Your task to perform on an android device: Play the last video I watched on Youtube Image 0: 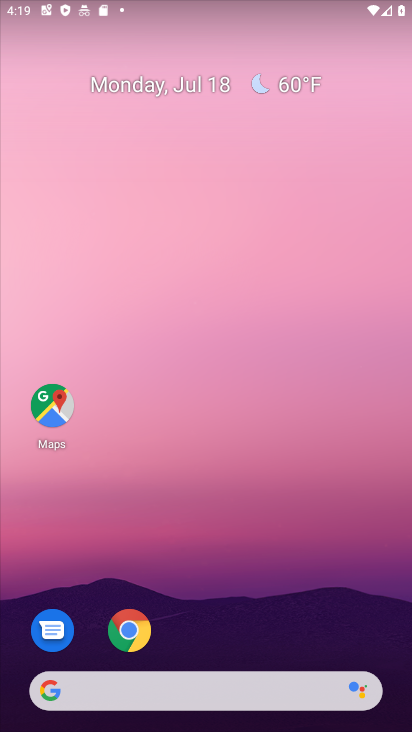
Step 0: drag from (277, 642) to (230, 193)
Your task to perform on an android device: Play the last video I watched on Youtube Image 1: 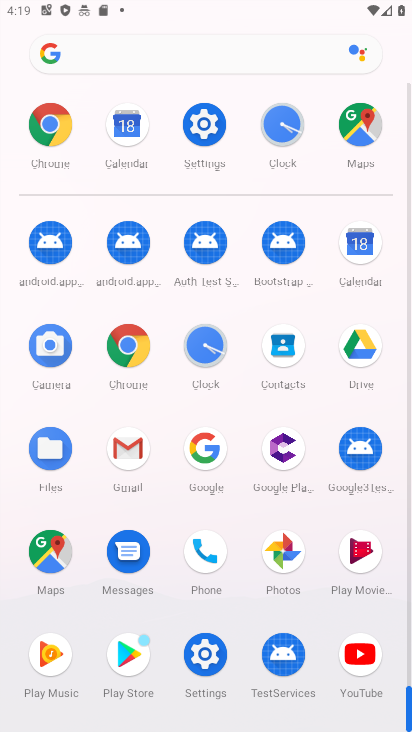
Step 1: click (361, 651)
Your task to perform on an android device: Play the last video I watched on Youtube Image 2: 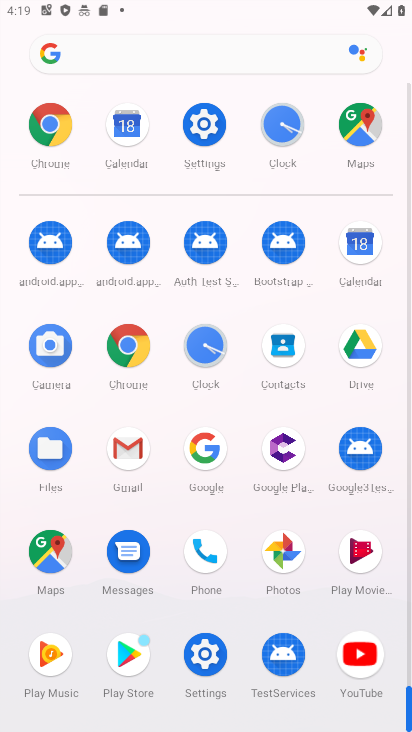
Step 2: click (355, 663)
Your task to perform on an android device: Play the last video I watched on Youtube Image 3: 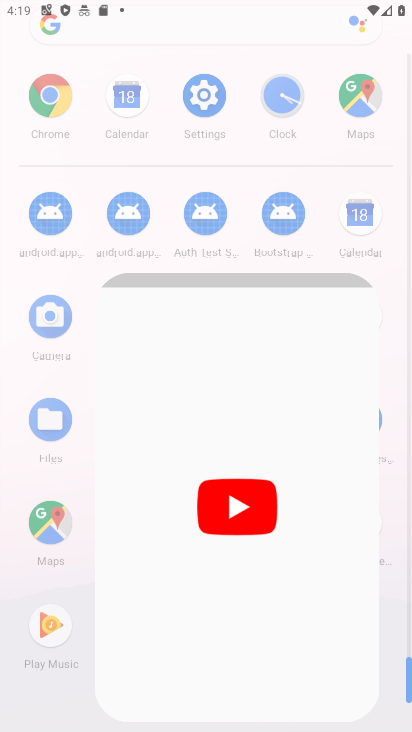
Step 3: click (355, 664)
Your task to perform on an android device: Play the last video I watched on Youtube Image 4: 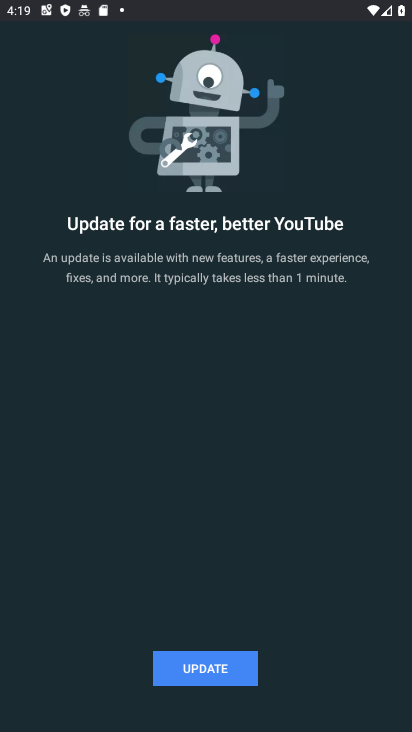
Step 4: click (222, 678)
Your task to perform on an android device: Play the last video I watched on Youtube Image 5: 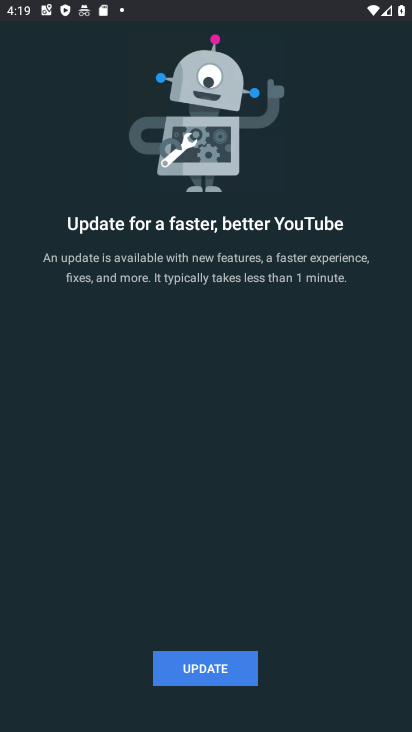
Step 5: click (223, 673)
Your task to perform on an android device: Play the last video I watched on Youtube Image 6: 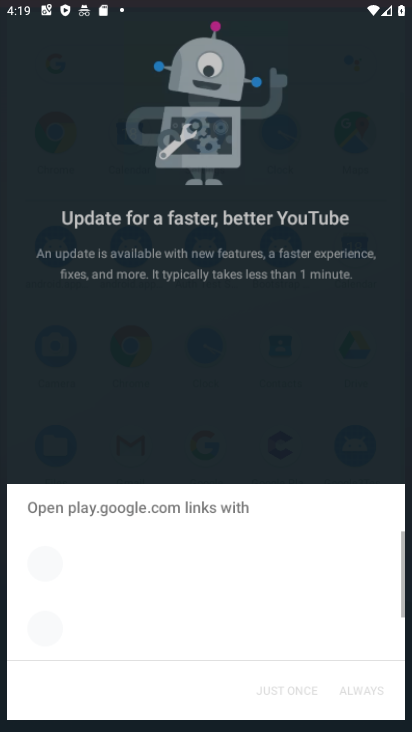
Step 6: click (224, 675)
Your task to perform on an android device: Play the last video I watched on Youtube Image 7: 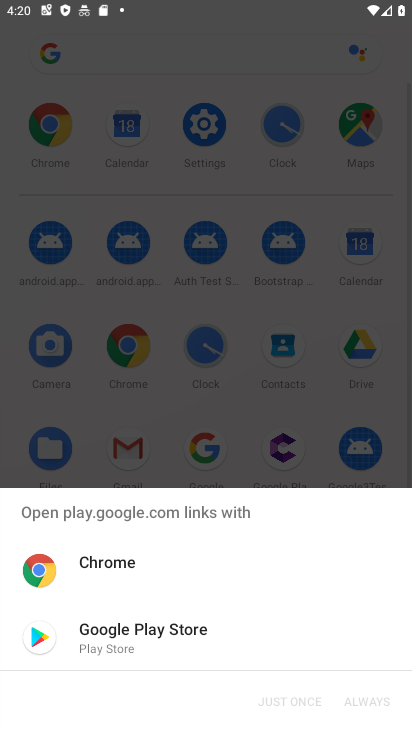
Step 7: click (115, 563)
Your task to perform on an android device: Play the last video I watched on Youtube Image 8: 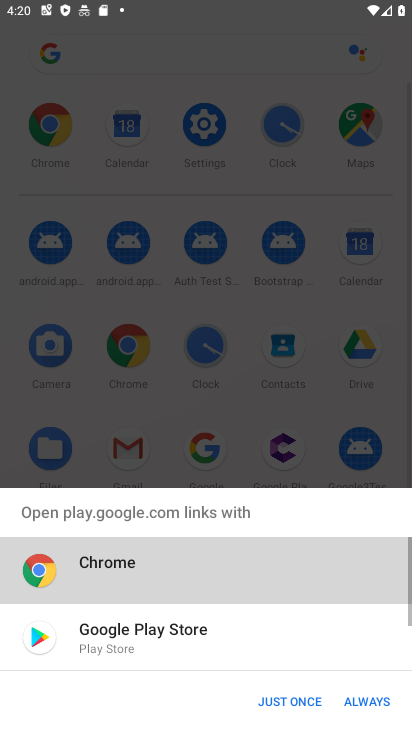
Step 8: click (115, 563)
Your task to perform on an android device: Play the last video I watched on Youtube Image 9: 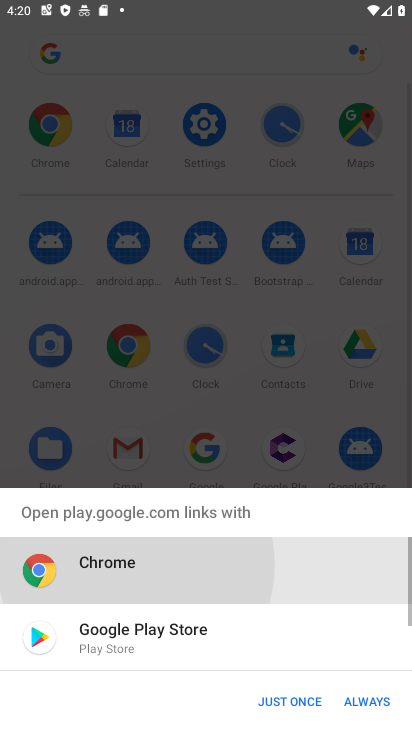
Step 9: click (115, 563)
Your task to perform on an android device: Play the last video I watched on Youtube Image 10: 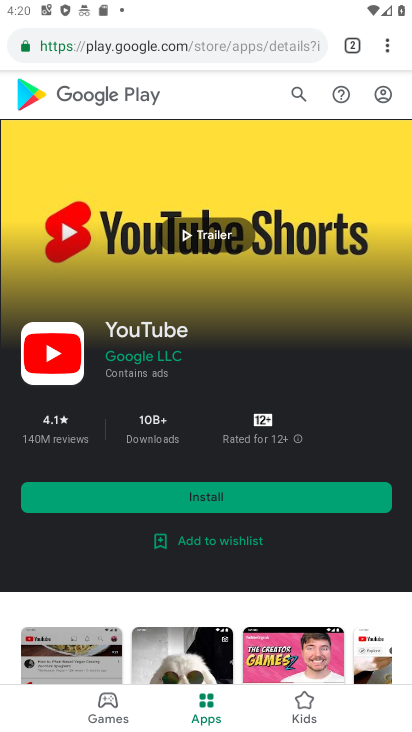
Step 10: task complete